Your task to perform on an android device: open chrome privacy settings Image 0: 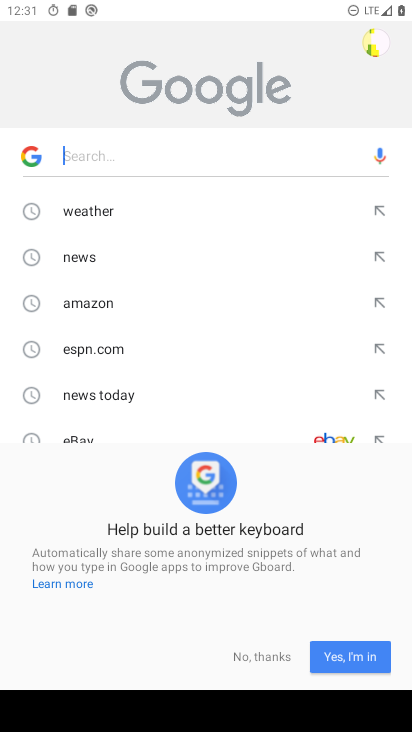
Step 0: press home button
Your task to perform on an android device: open chrome privacy settings Image 1: 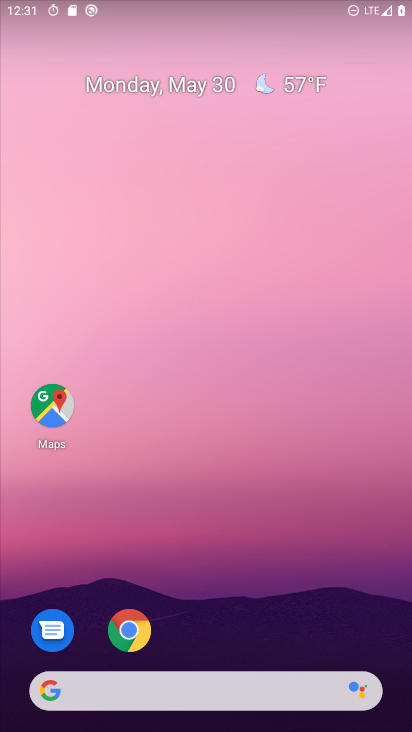
Step 1: drag from (285, 715) to (208, 188)
Your task to perform on an android device: open chrome privacy settings Image 2: 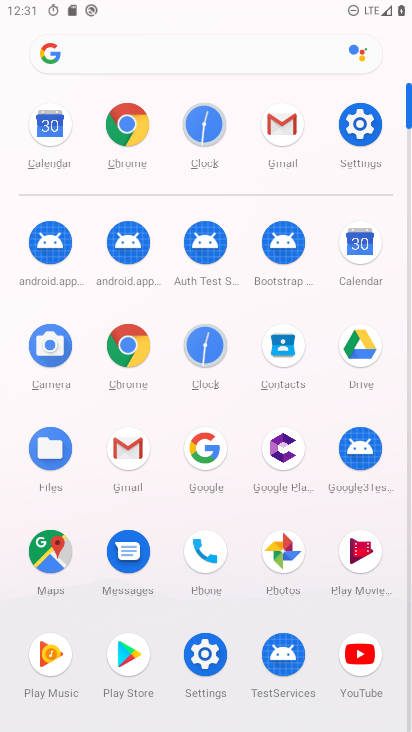
Step 2: click (128, 138)
Your task to perform on an android device: open chrome privacy settings Image 3: 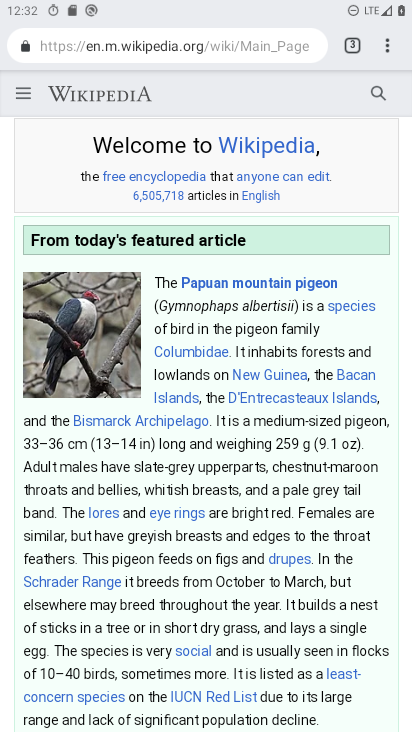
Step 3: click (388, 47)
Your task to perform on an android device: open chrome privacy settings Image 4: 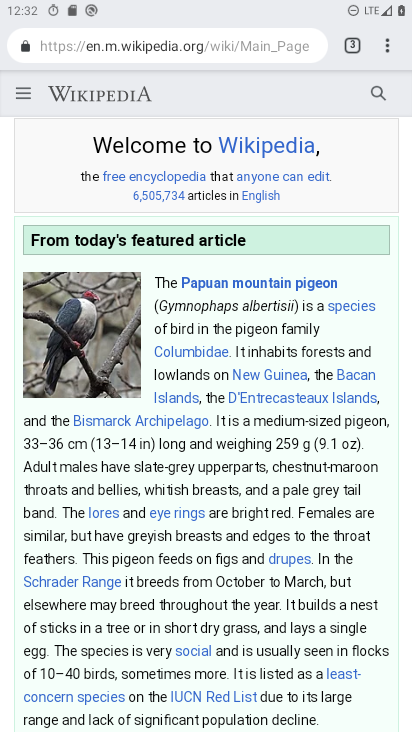
Step 4: click (381, 58)
Your task to perform on an android device: open chrome privacy settings Image 5: 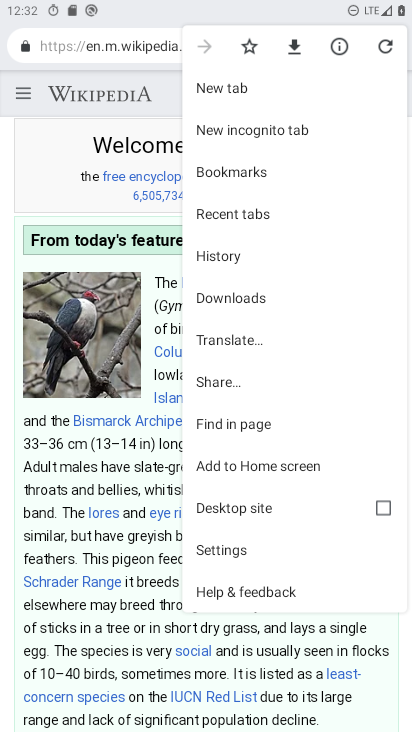
Step 5: click (251, 549)
Your task to perform on an android device: open chrome privacy settings Image 6: 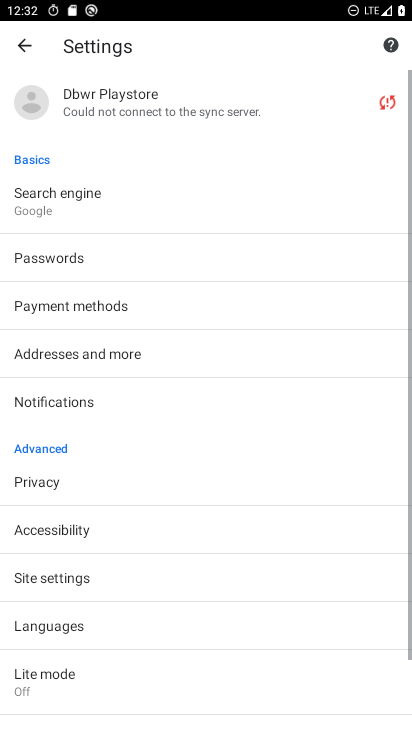
Step 6: click (53, 481)
Your task to perform on an android device: open chrome privacy settings Image 7: 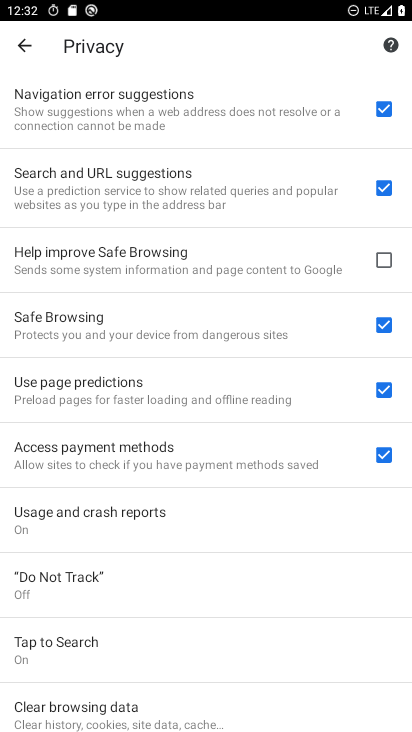
Step 7: task complete